Your task to perform on an android device: What's the news in Ecuador? Image 0: 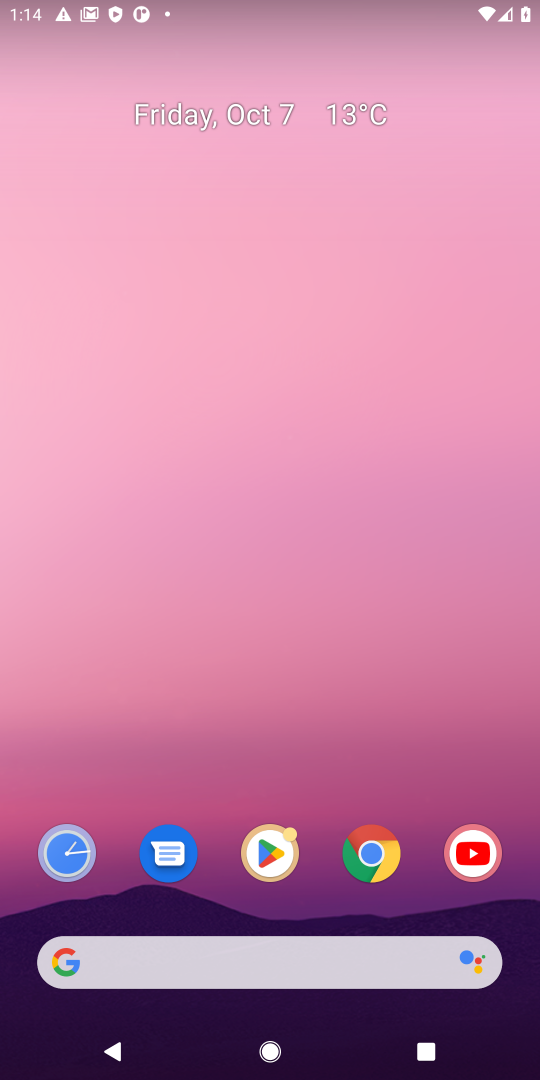
Step 0: click (317, 957)
Your task to perform on an android device: What's the news in Ecuador? Image 1: 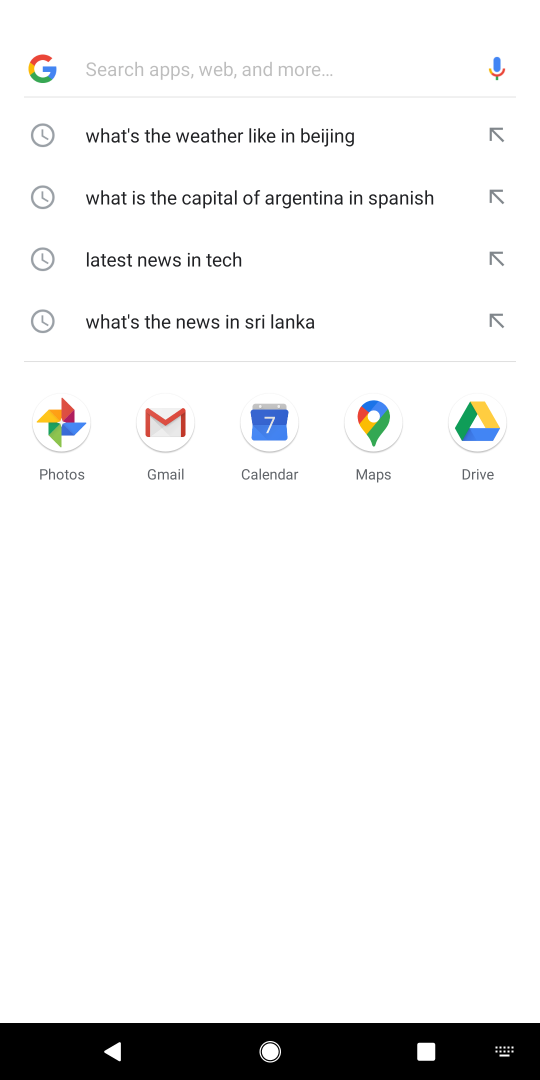
Step 1: type "What's the news in Ecuador?"
Your task to perform on an android device: What's the news in Ecuador? Image 2: 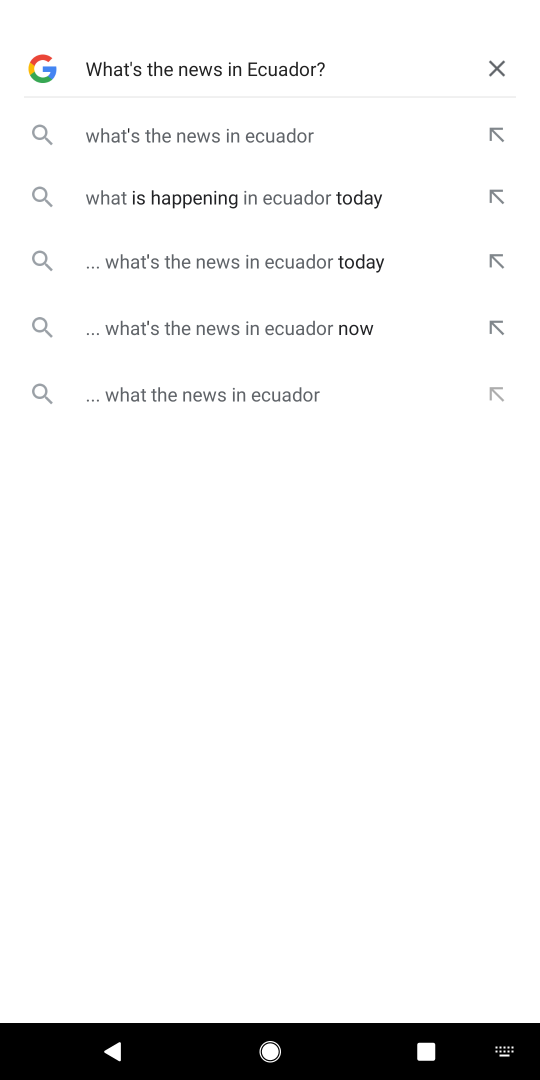
Step 2: click (203, 148)
Your task to perform on an android device: What's the news in Ecuador? Image 3: 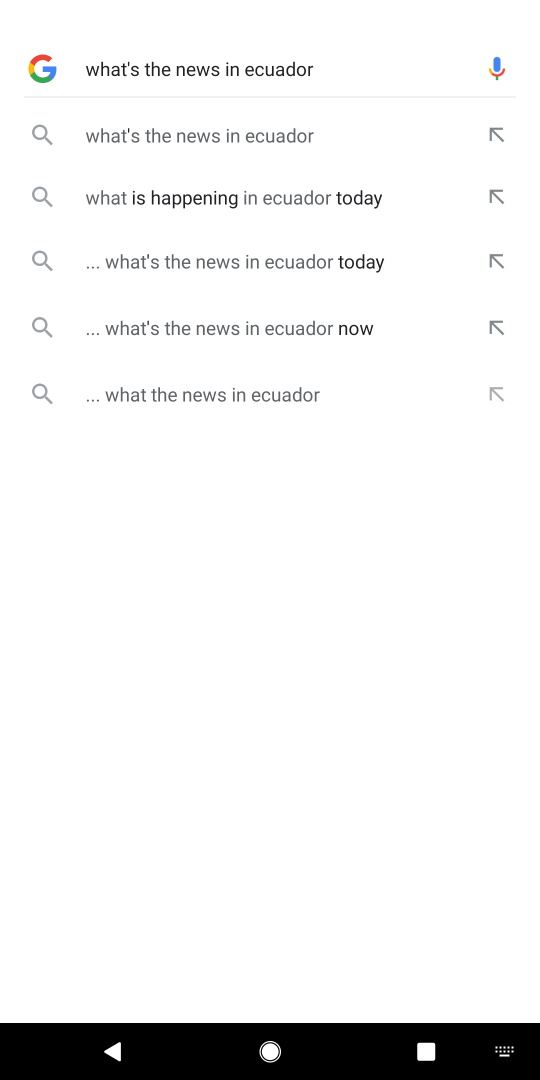
Step 3: task complete